Your task to perform on an android device: add a contact in the contacts app Image 0: 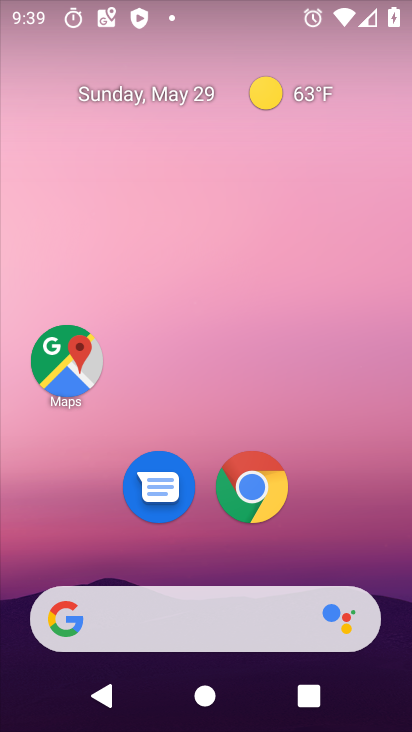
Step 0: drag from (243, 684) to (211, 59)
Your task to perform on an android device: add a contact in the contacts app Image 1: 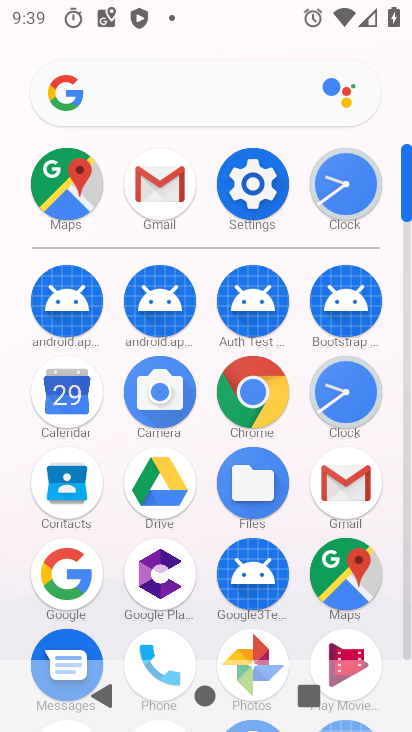
Step 1: click (70, 501)
Your task to perform on an android device: add a contact in the contacts app Image 2: 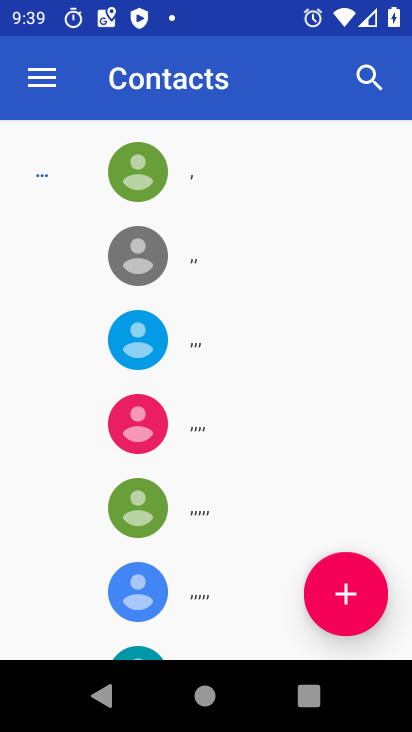
Step 2: click (374, 591)
Your task to perform on an android device: add a contact in the contacts app Image 3: 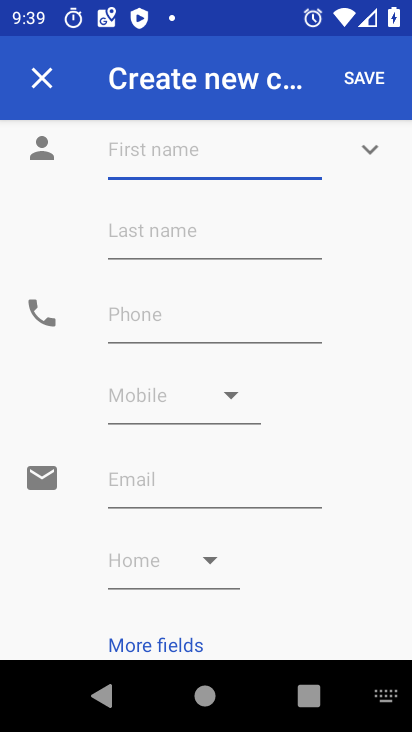
Step 3: type "fjyfkj"
Your task to perform on an android device: add a contact in the contacts app Image 4: 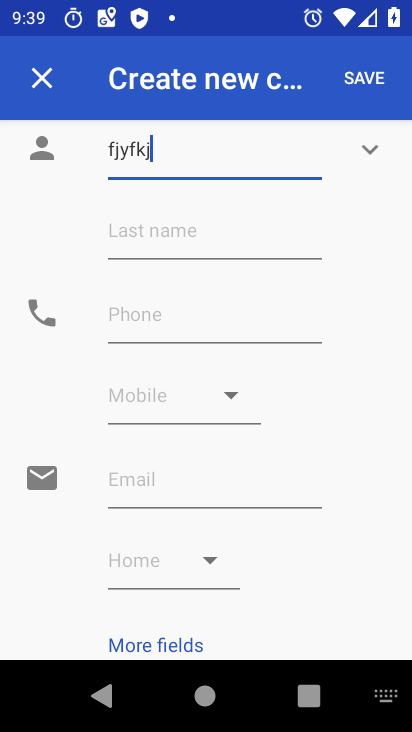
Step 4: click (139, 324)
Your task to perform on an android device: add a contact in the contacts app Image 5: 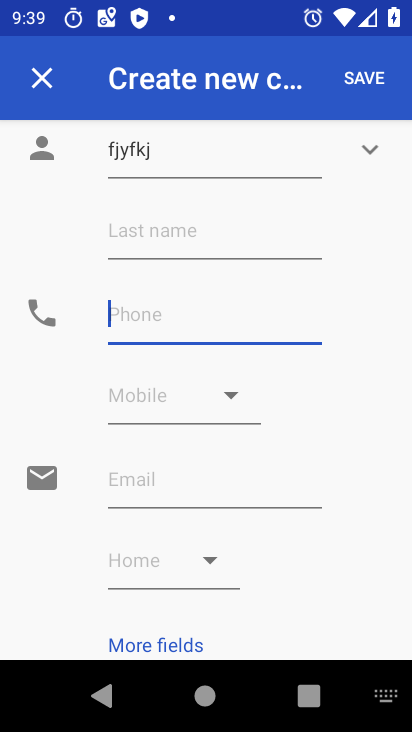
Step 5: type "989698"
Your task to perform on an android device: add a contact in the contacts app Image 6: 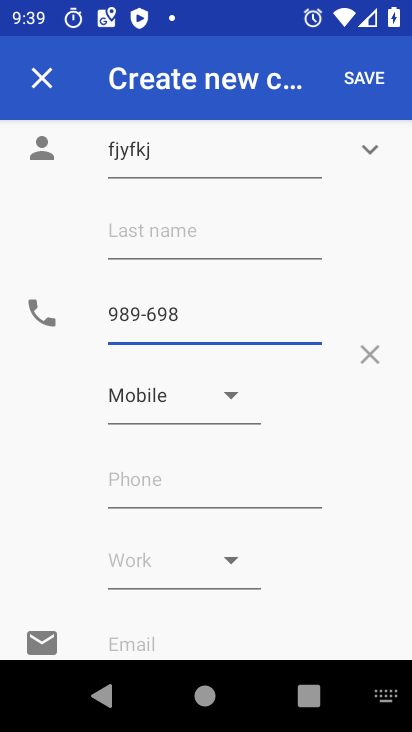
Step 6: click (349, 82)
Your task to perform on an android device: add a contact in the contacts app Image 7: 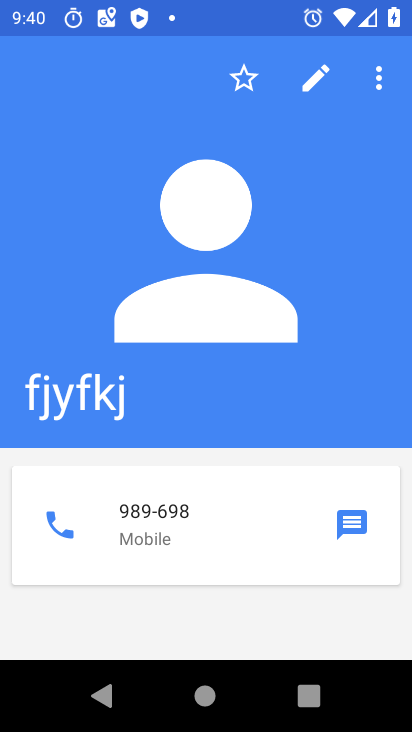
Step 7: task complete